Your task to perform on an android device: Search for the new ikea dresser Image 0: 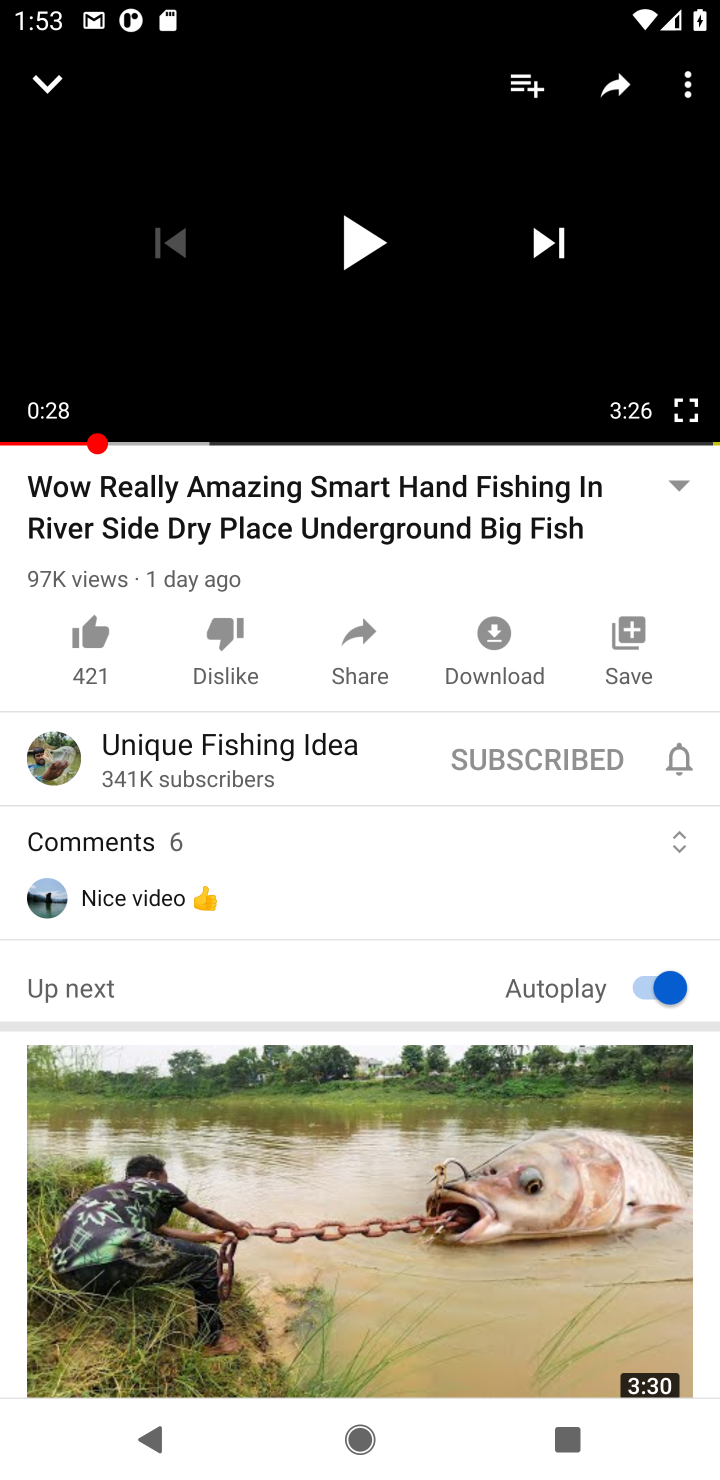
Step 0: task complete